Your task to perform on an android device: uninstall "Facebook Lite" Image 0: 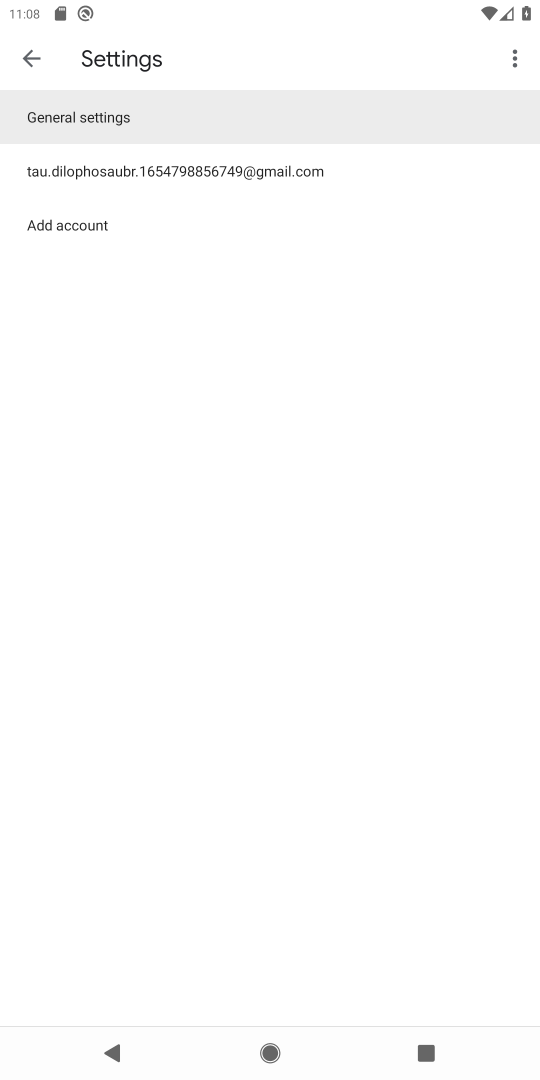
Step 0: press home button
Your task to perform on an android device: uninstall "Facebook Lite" Image 1: 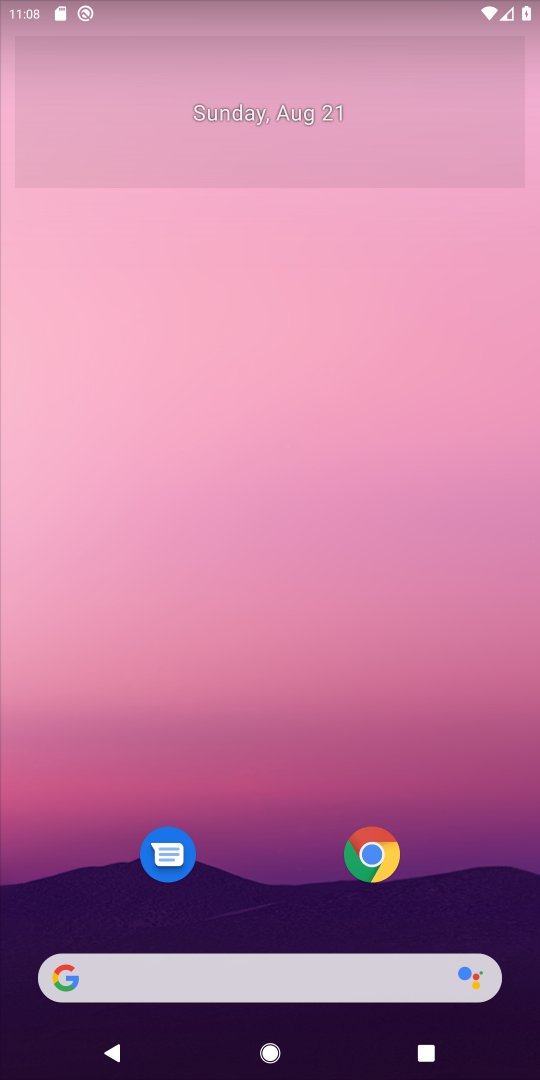
Step 1: drag from (314, 448) to (314, 112)
Your task to perform on an android device: uninstall "Facebook Lite" Image 2: 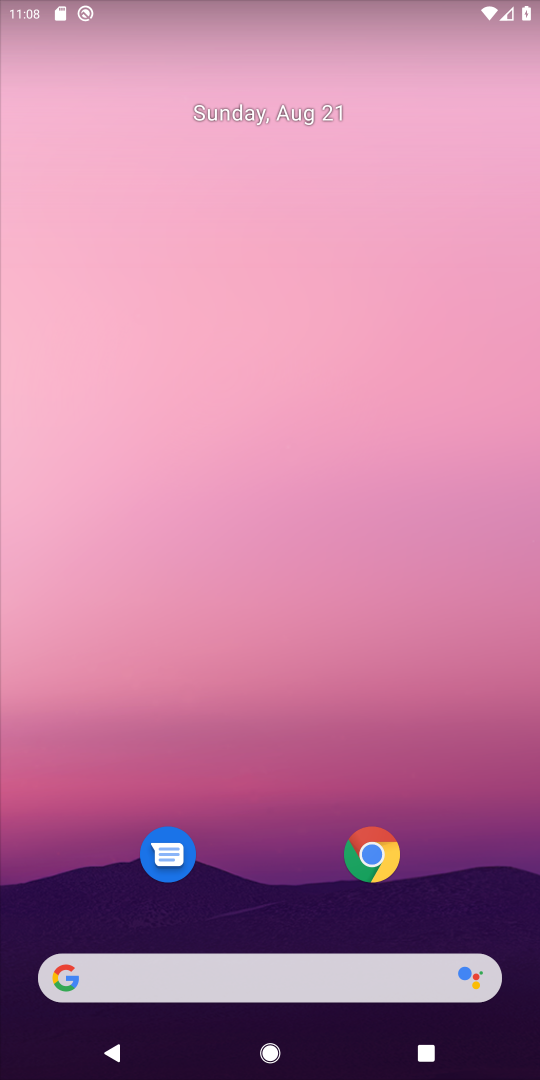
Step 2: drag from (267, 916) to (325, 2)
Your task to perform on an android device: uninstall "Facebook Lite" Image 3: 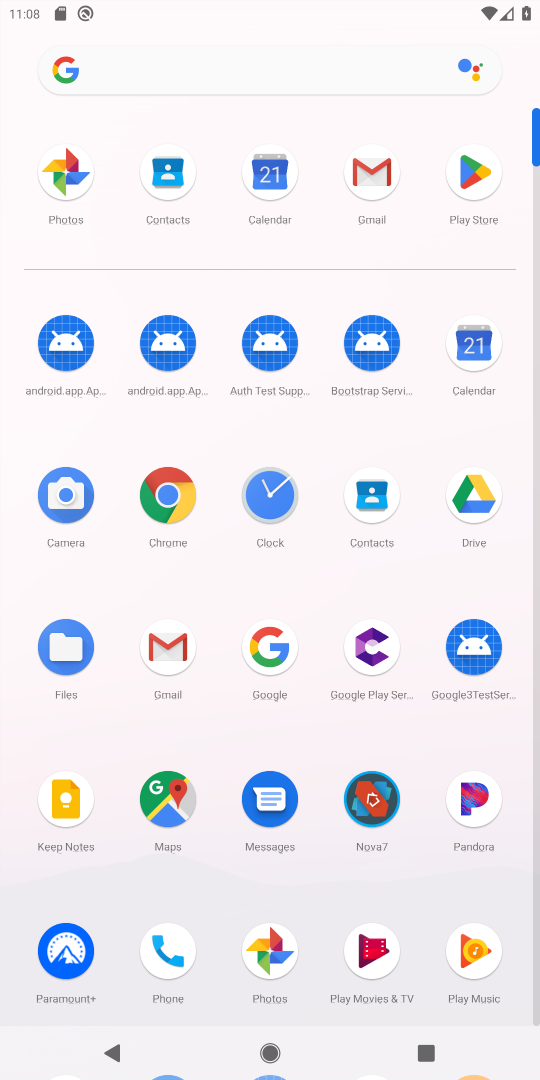
Step 3: click (485, 156)
Your task to perform on an android device: uninstall "Facebook Lite" Image 4: 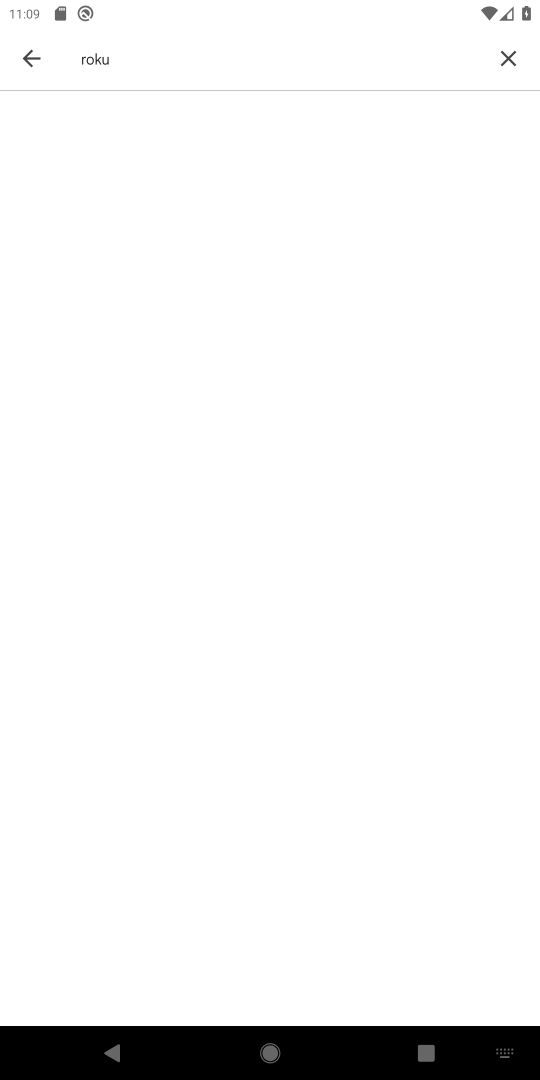
Step 4: click (515, 68)
Your task to perform on an android device: uninstall "Facebook Lite" Image 5: 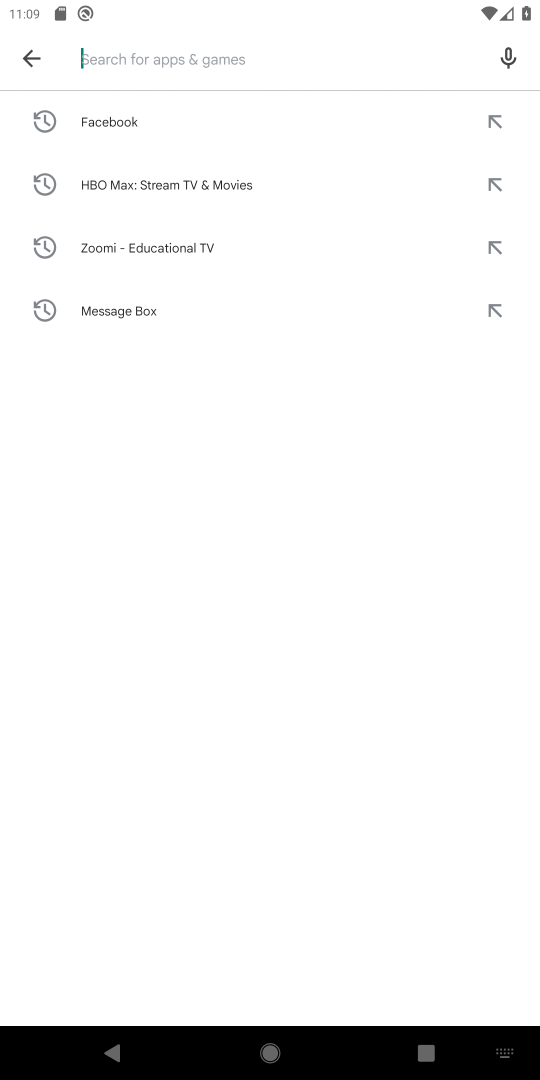
Step 5: type "facebook lite"
Your task to perform on an android device: uninstall "Facebook Lite" Image 6: 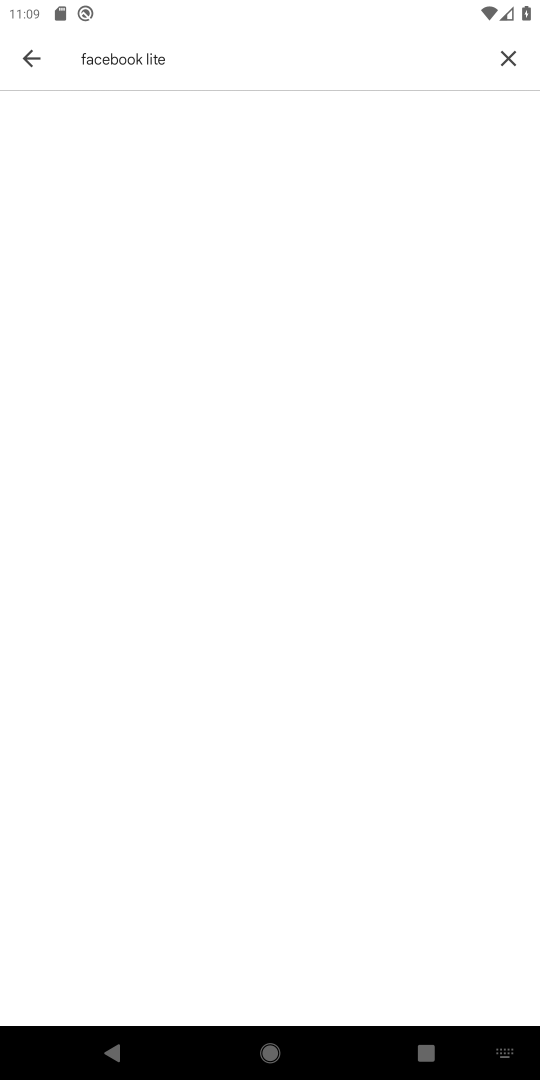
Step 6: task complete